Your task to perform on an android device: delete location history Image 0: 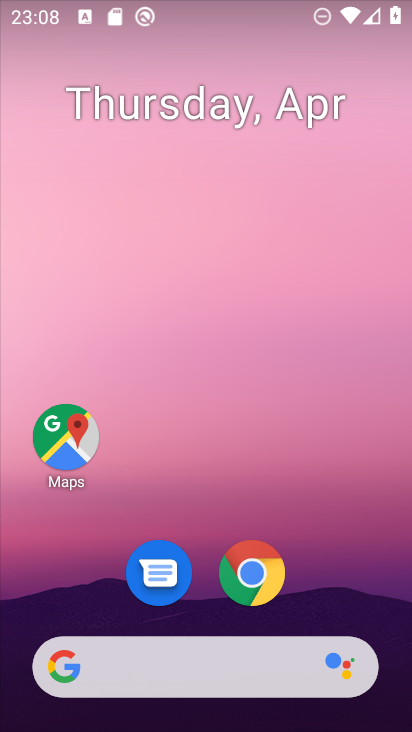
Step 0: drag from (312, 503) to (286, 150)
Your task to perform on an android device: delete location history Image 1: 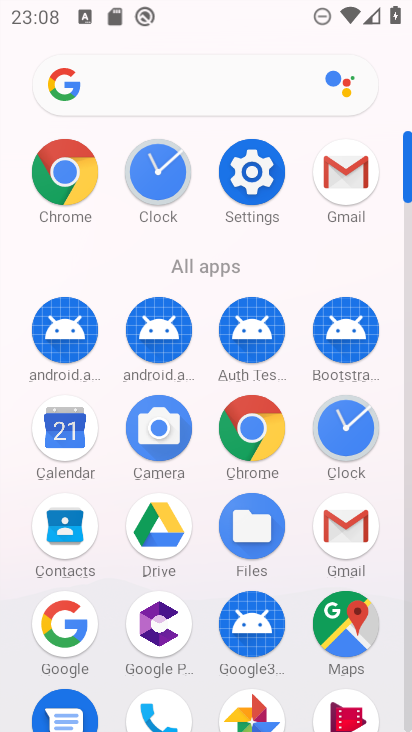
Step 1: click (274, 180)
Your task to perform on an android device: delete location history Image 2: 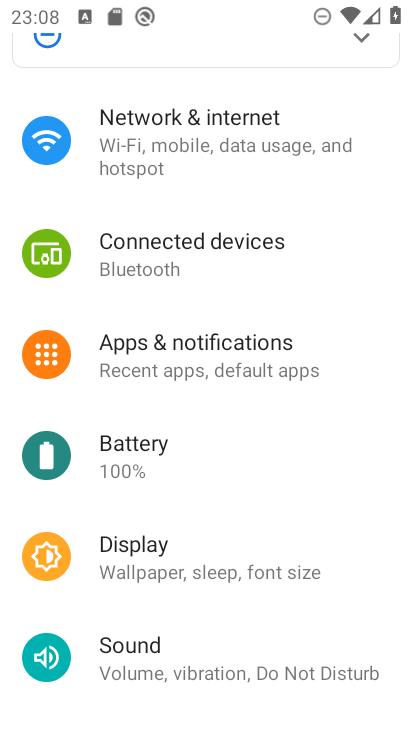
Step 2: drag from (243, 637) to (252, 207)
Your task to perform on an android device: delete location history Image 3: 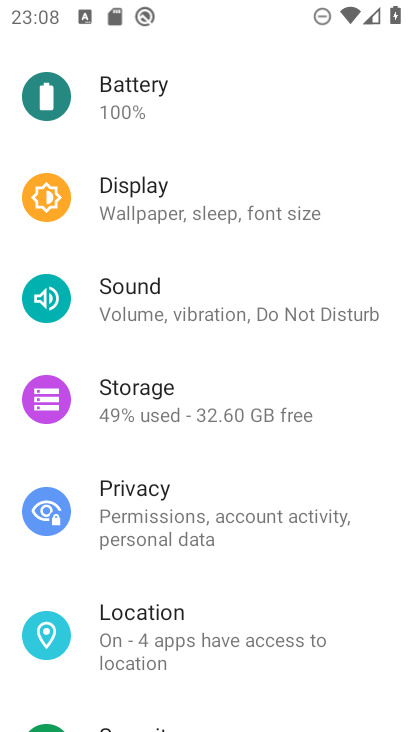
Step 3: click (245, 634)
Your task to perform on an android device: delete location history Image 4: 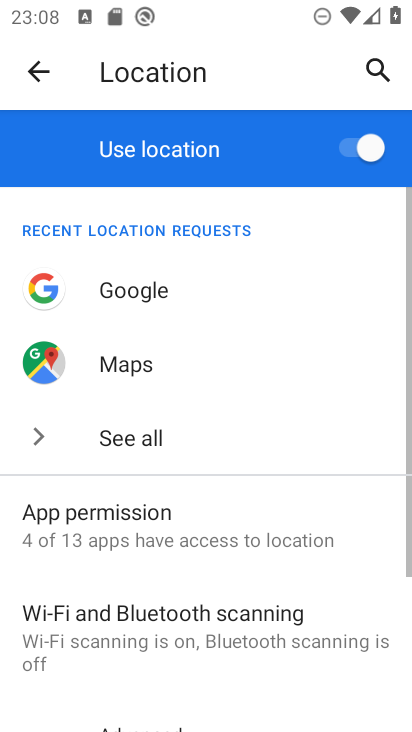
Step 4: drag from (231, 559) to (262, 59)
Your task to perform on an android device: delete location history Image 5: 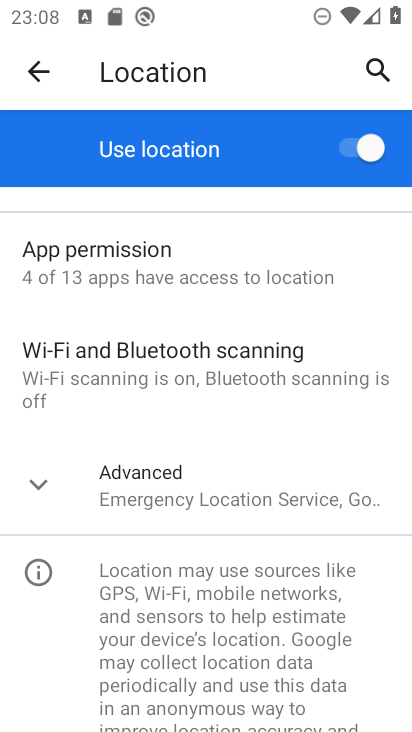
Step 5: click (204, 497)
Your task to perform on an android device: delete location history Image 6: 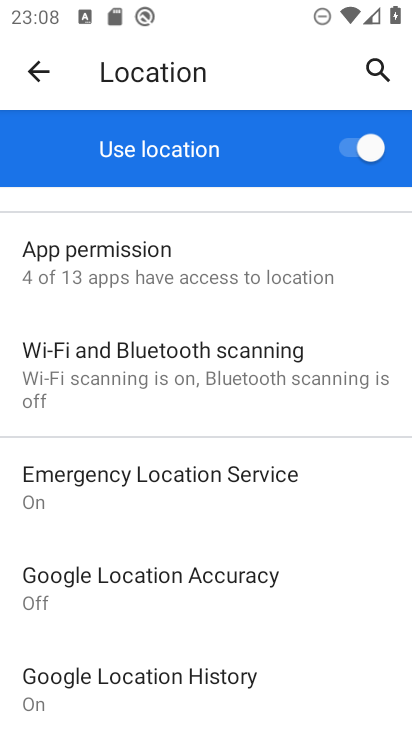
Step 6: drag from (282, 602) to (266, 214)
Your task to perform on an android device: delete location history Image 7: 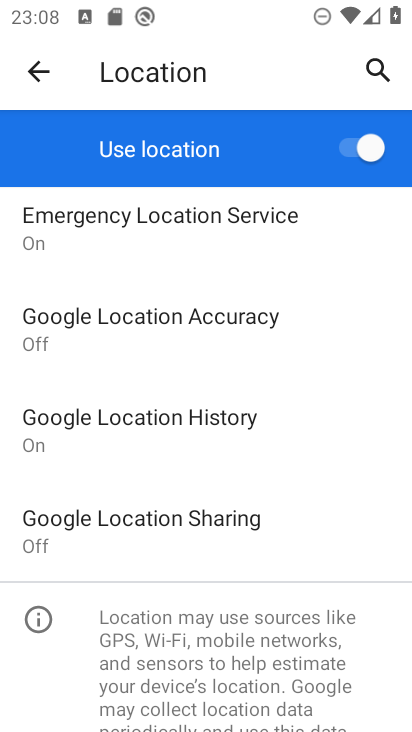
Step 7: click (245, 428)
Your task to perform on an android device: delete location history Image 8: 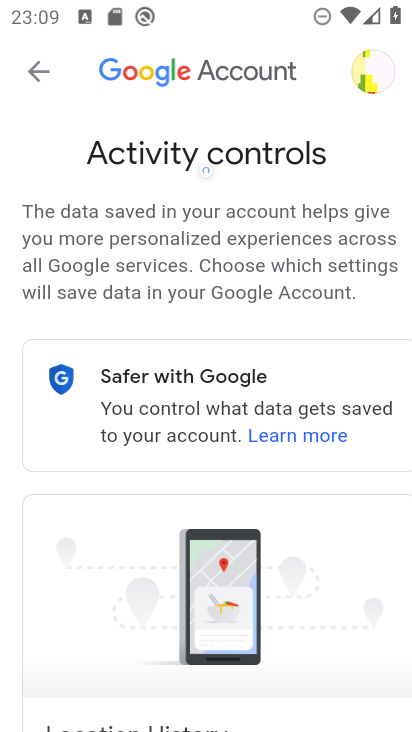
Step 8: drag from (281, 542) to (261, 149)
Your task to perform on an android device: delete location history Image 9: 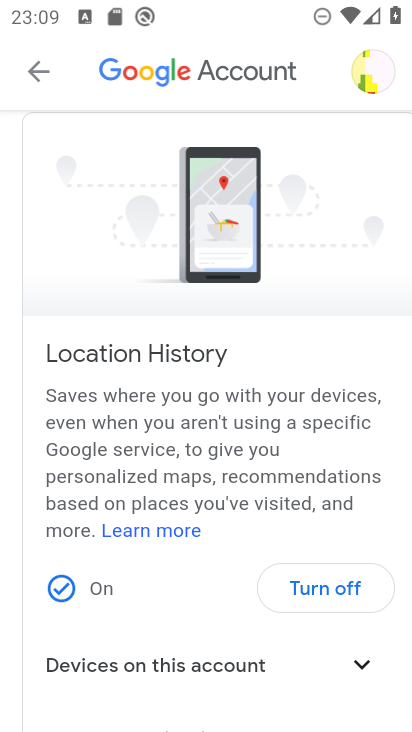
Step 9: drag from (287, 535) to (310, 141)
Your task to perform on an android device: delete location history Image 10: 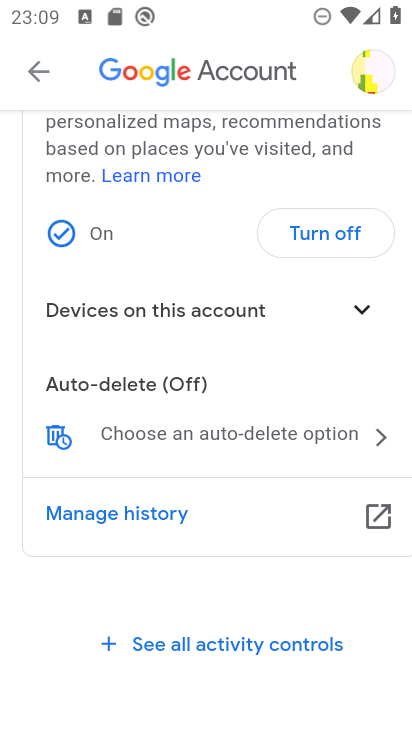
Step 10: click (52, 430)
Your task to perform on an android device: delete location history Image 11: 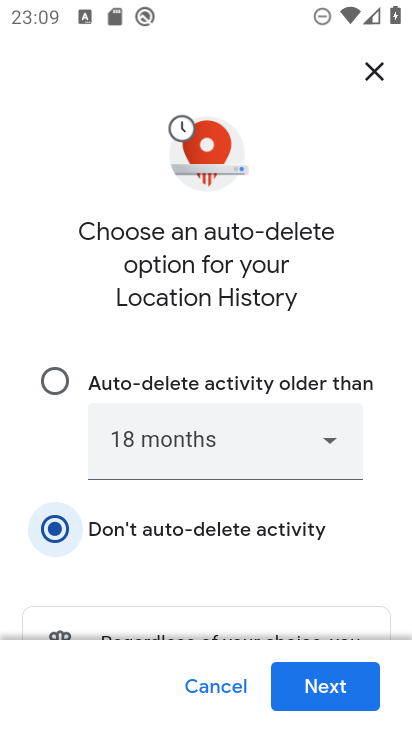
Step 11: click (370, 663)
Your task to perform on an android device: delete location history Image 12: 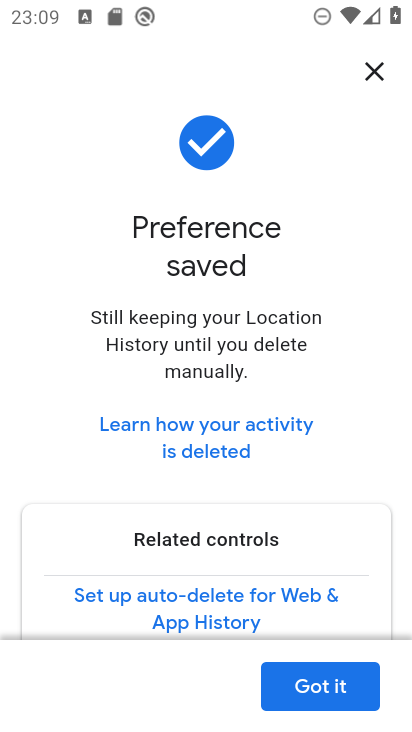
Step 12: click (364, 680)
Your task to perform on an android device: delete location history Image 13: 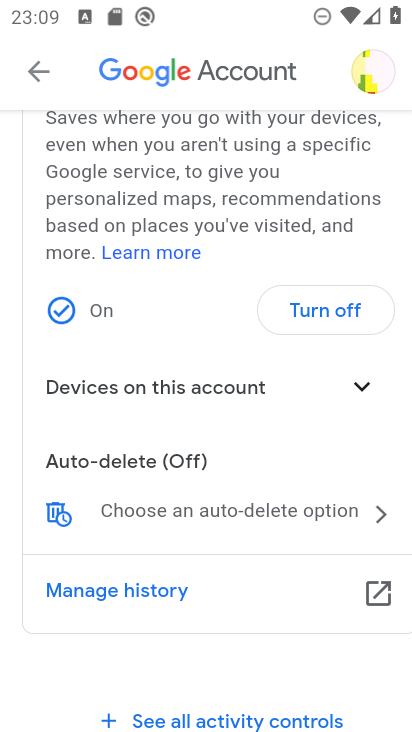
Step 13: task complete